Your task to perform on an android device: make emails show in primary in the gmail app Image 0: 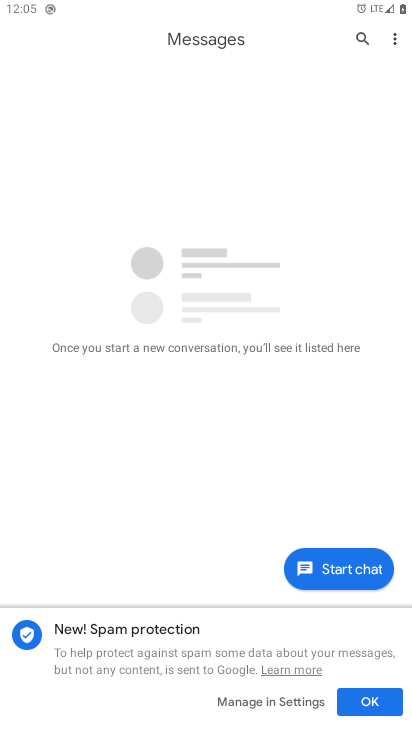
Step 0: press home button
Your task to perform on an android device: make emails show in primary in the gmail app Image 1: 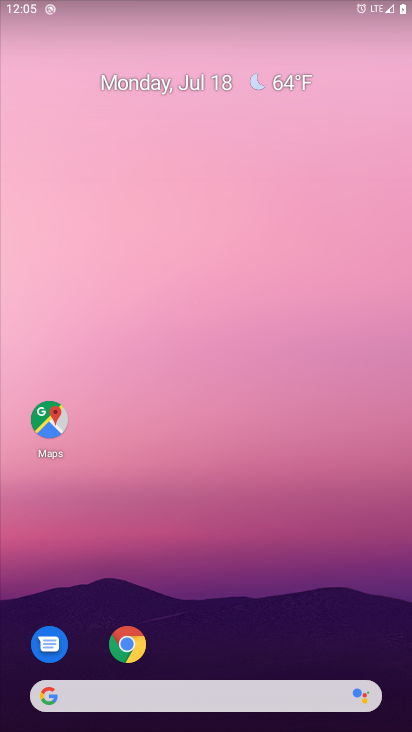
Step 1: drag from (251, 623) to (222, 28)
Your task to perform on an android device: make emails show in primary in the gmail app Image 2: 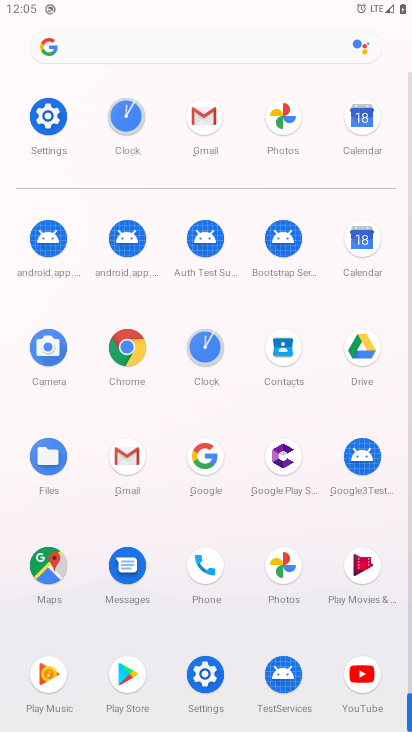
Step 2: click (204, 106)
Your task to perform on an android device: make emails show in primary in the gmail app Image 3: 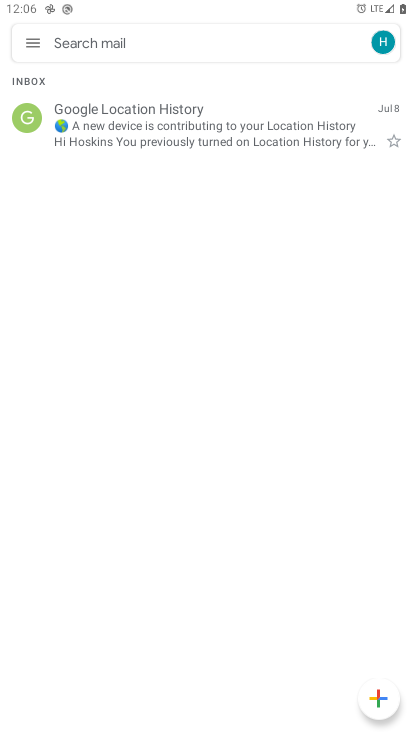
Step 3: click (34, 40)
Your task to perform on an android device: make emails show in primary in the gmail app Image 4: 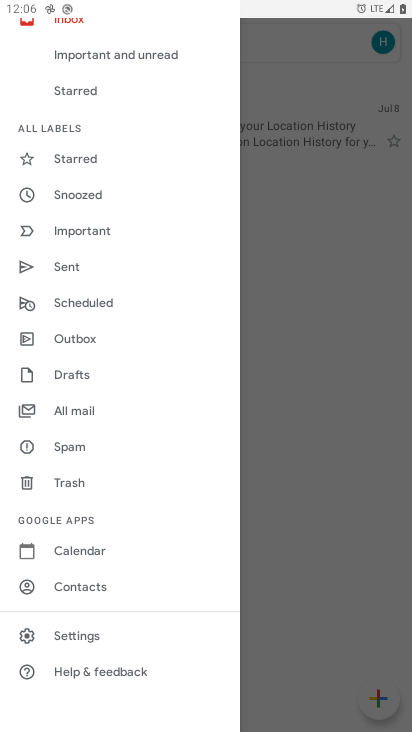
Step 4: click (80, 634)
Your task to perform on an android device: make emails show in primary in the gmail app Image 5: 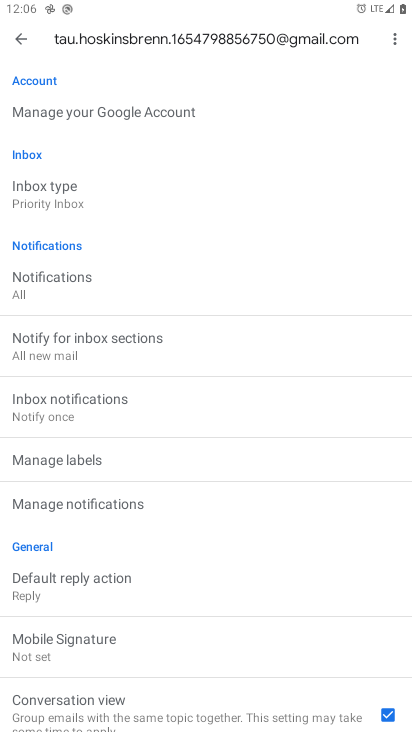
Step 5: click (51, 187)
Your task to perform on an android device: make emails show in primary in the gmail app Image 6: 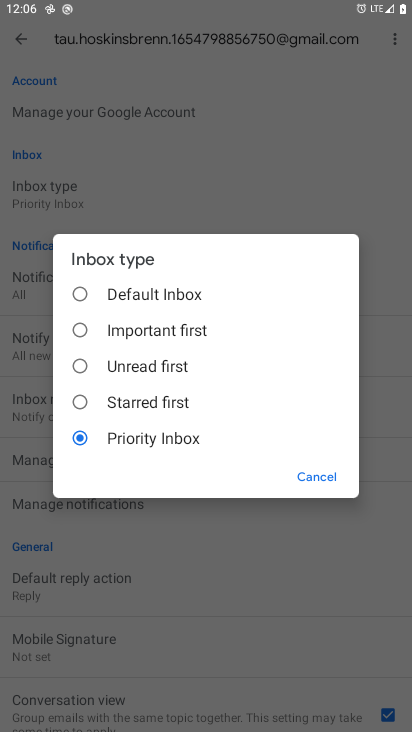
Step 6: click (75, 295)
Your task to perform on an android device: make emails show in primary in the gmail app Image 7: 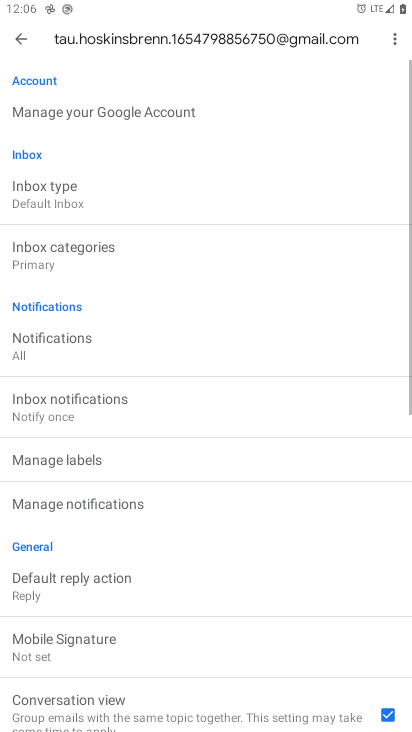
Step 7: click (47, 266)
Your task to perform on an android device: make emails show in primary in the gmail app Image 8: 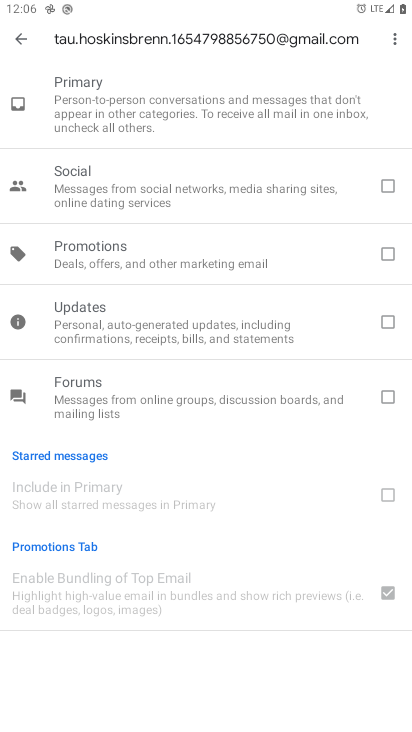
Step 8: task complete